Your task to perform on an android device: Go to CNN.com Image 0: 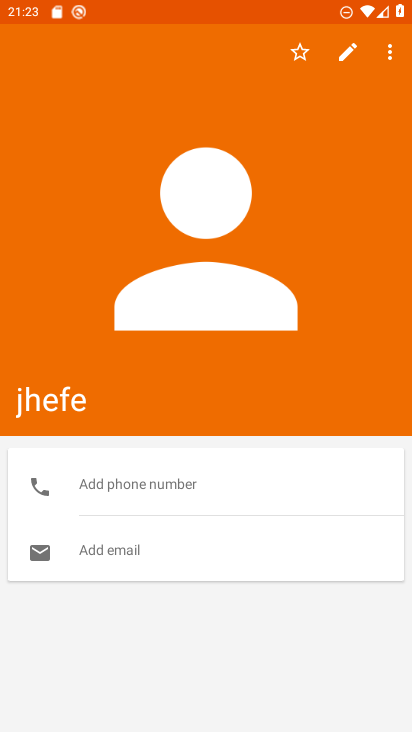
Step 0: press home button
Your task to perform on an android device: Go to CNN.com Image 1: 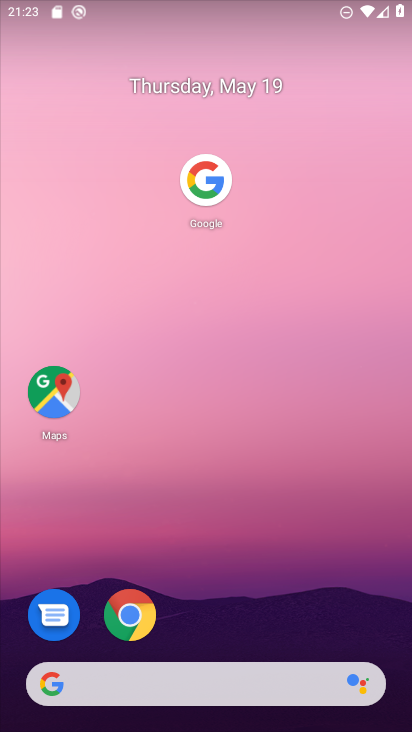
Step 1: click (196, 184)
Your task to perform on an android device: Go to CNN.com Image 2: 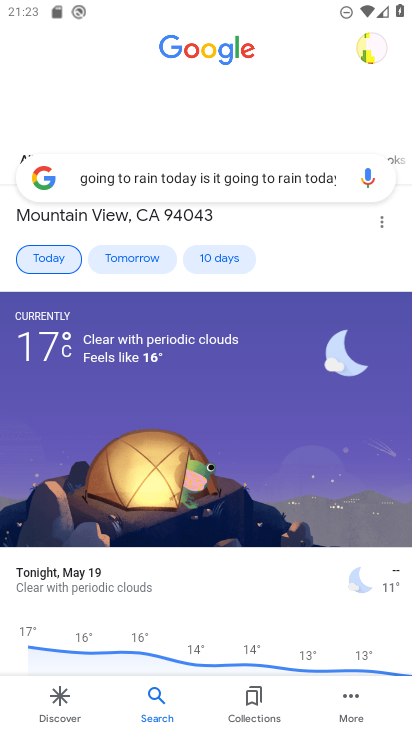
Step 2: click (313, 178)
Your task to perform on an android device: Go to CNN.com Image 3: 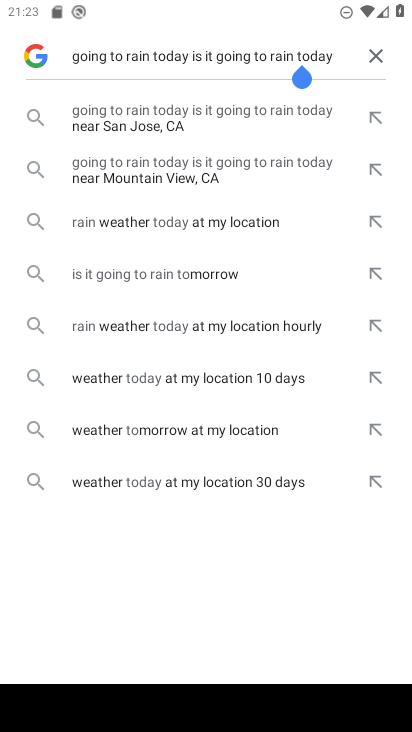
Step 3: click (375, 51)
Your task to perform on an android device: Go to CNN.com Image 4: 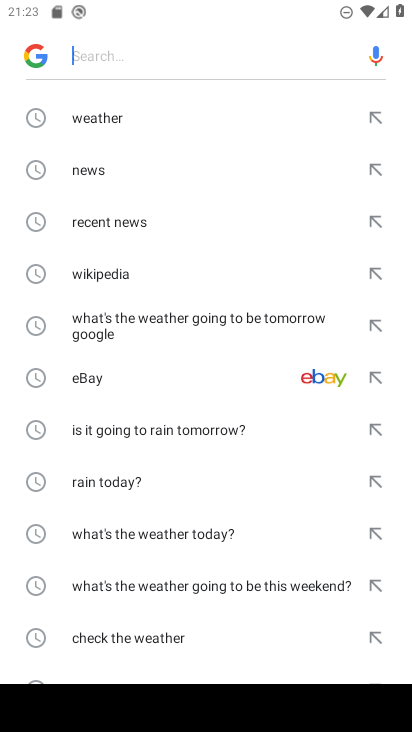
Step 4: type "cnn.com"
Your task to perform on an android device: Go to CNN.com Image 5: 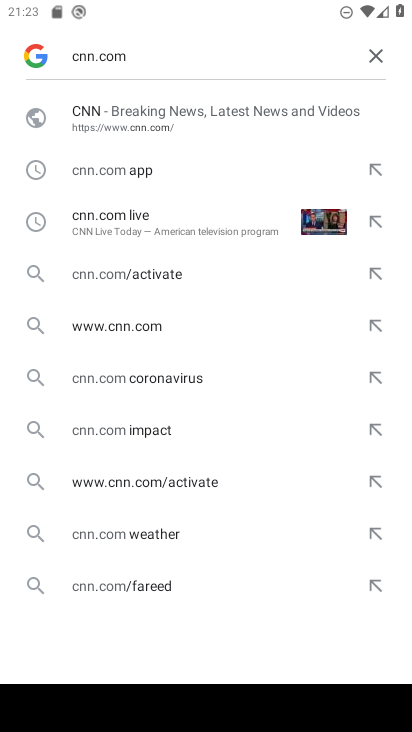
Step 5: click (117, 122)
Your task to perform on an android device: Go to CNN.com Image 6: 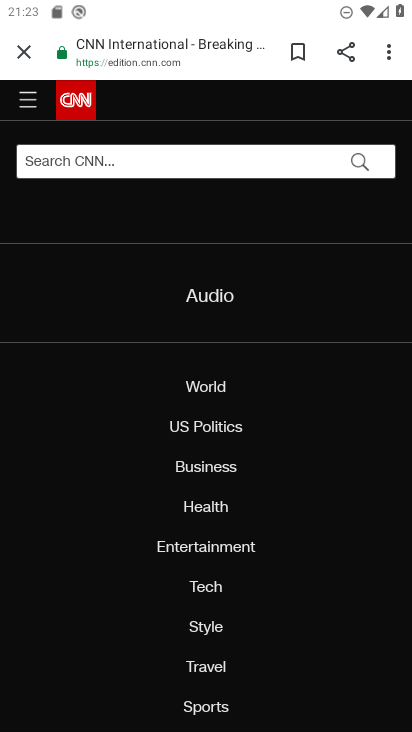
Step 6: task complete